Your task to perform on an android device: Open privacy settings Image 0: 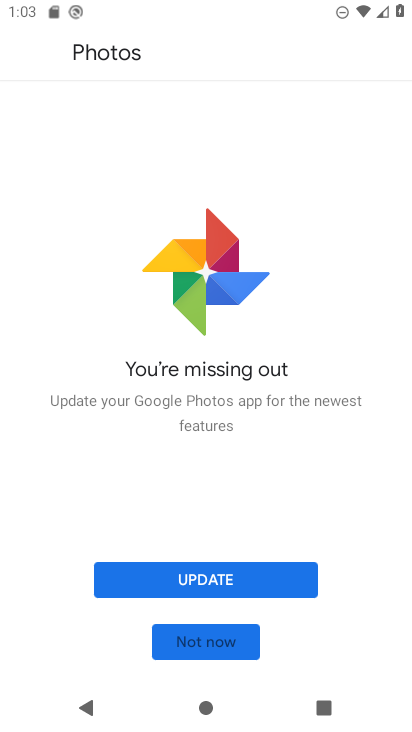
Step 0: press home button
Your task to perform on an android device: Open privacy settings Image 1: 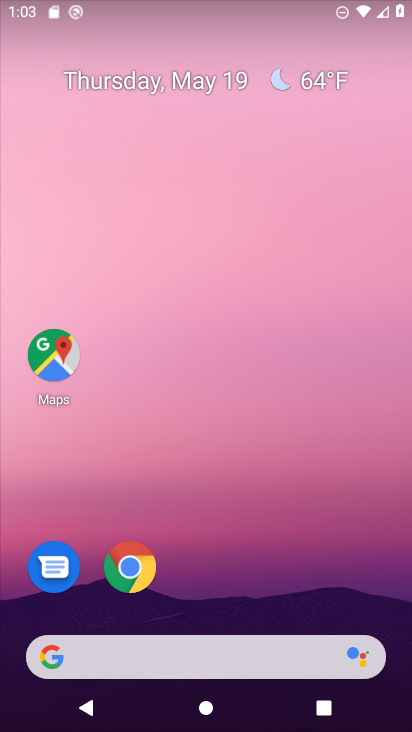
Step 1: drag from (229, 575) to (228, 208)
Your task to perform on an android device: Open privacy settings Image 2: 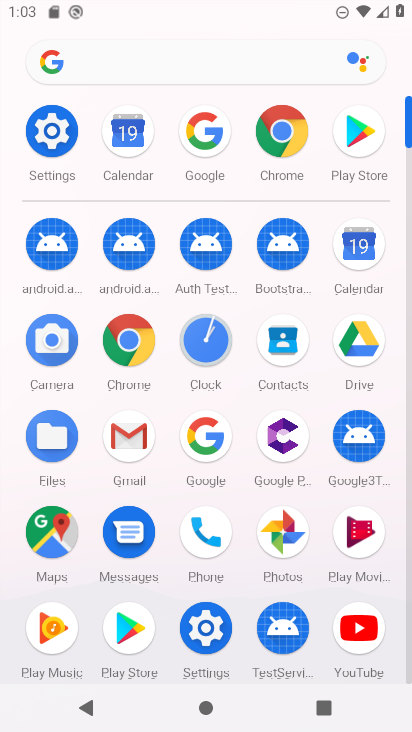
Step 2: click (18, 134)
Your task to perform on an android device: Open privacy settings Image 3: 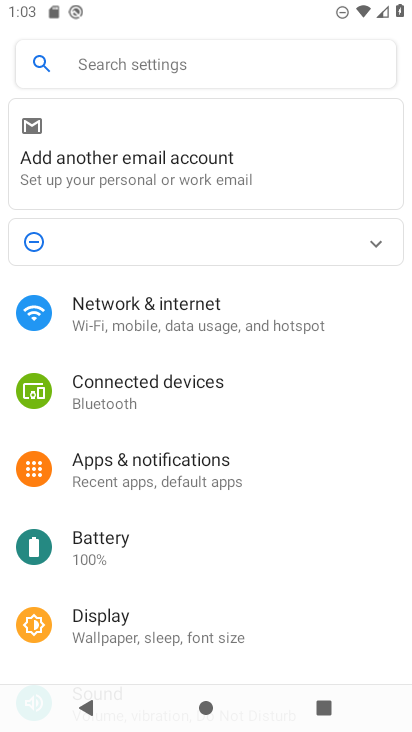
Step 3: drag from (223, 572) to (240, 320)
Your task to perform on an android device: Open privacy settings Image 4: 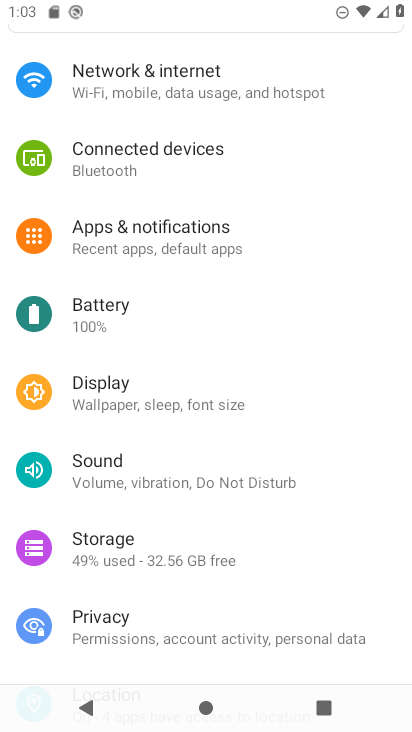
Step 4: click (233, 625)
Your task to perform on an android device: Open privacy settings Image 5: 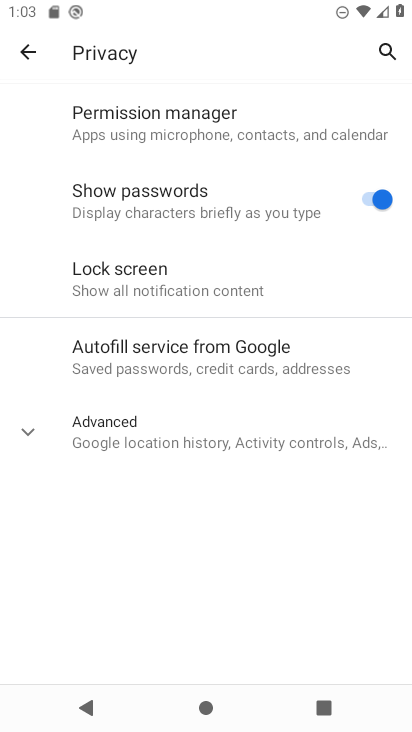
Step 5: task complete